Your task to perform on an android device: Search for seafood restaurants on Google Maps Image 0: 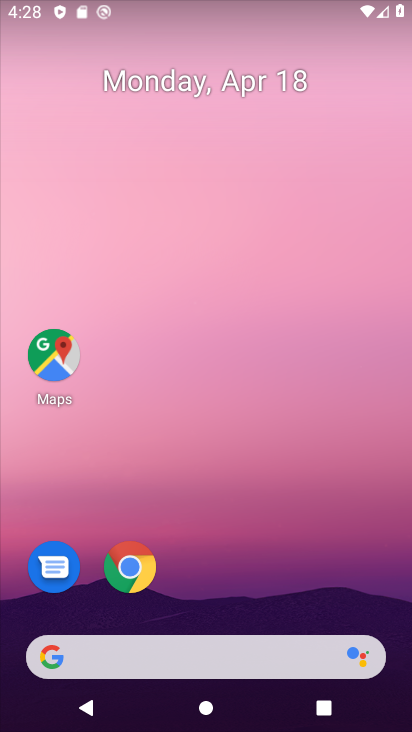
Step 0: click (45, 347)
Your task to perform on an android device: Search for seafood restaurants on Google Maps Image 1: 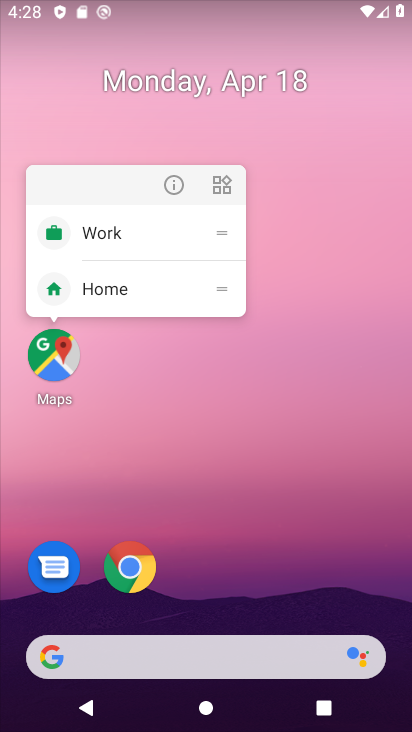
Step 1: click (45, 347)
Your task to perform on an android device: Search for seafood restaurants on Google Maps Image 2: 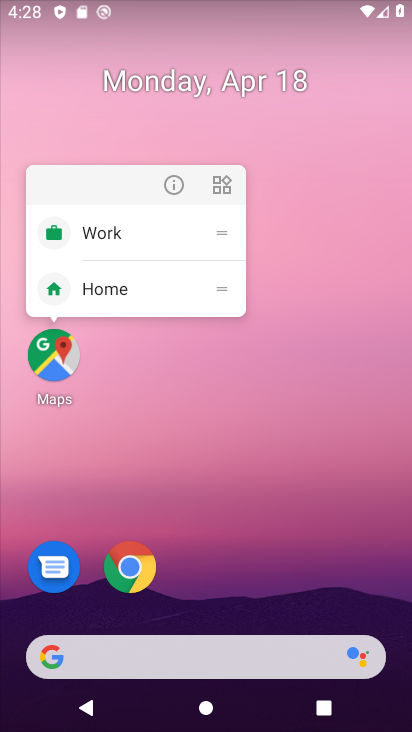
Step 2: click (45, 347)
Your task to perform on an android device: Search for seafood restaurants on Google Maps Image 3: 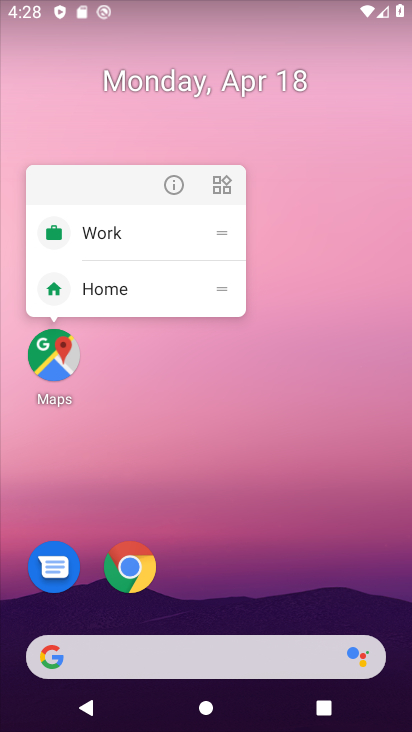
Step 3: click (45, 347)
Your task to perform on an android device: Search for seafood restaurants on Google Maps Image 4: 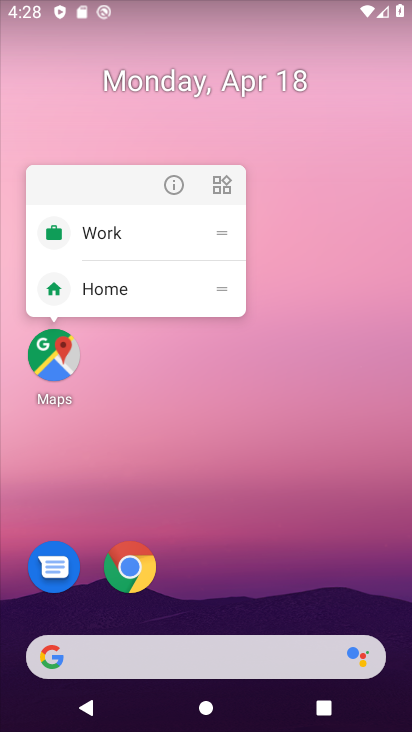
Step 4: click (71, 365)
Your task to perform on an android device: Search for seafood restaurants on Google Maps Image 5: 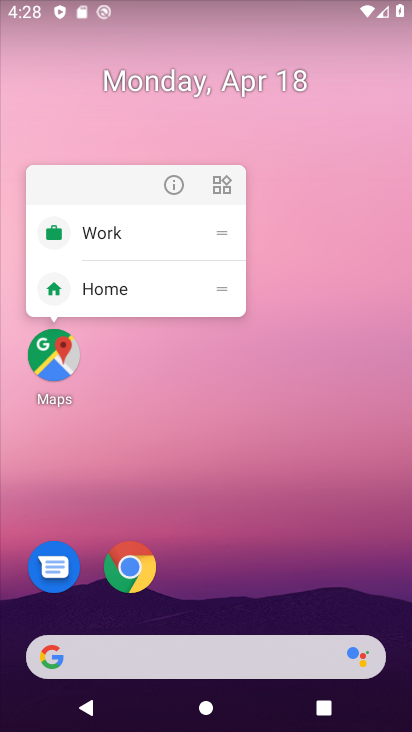
Step 5: click (71, 365)
Your task to perform on an android device: Search for seafood restaurants on Google Maps Image 6: 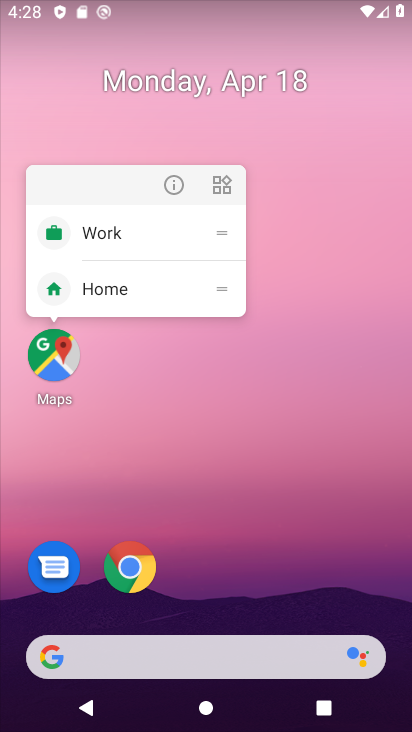
Step 6: click (71, 365)
Your task to perform on an android device: Search for seafood restaurants on Google Maps Image 7: 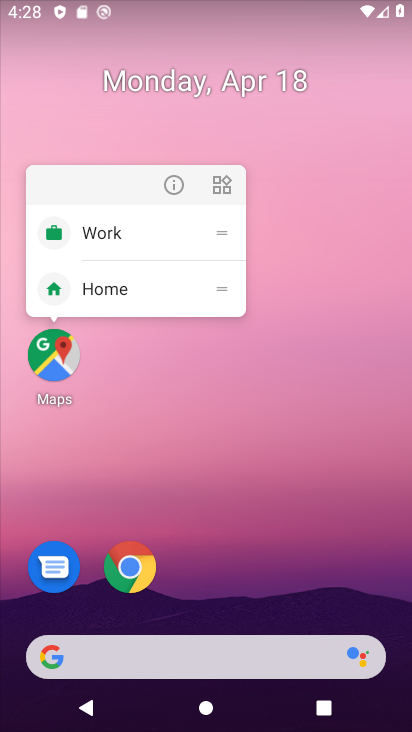
Step 7: click (67, 364)
Your task to perform on an android device: Search for seafood restaurants on Google Maps Image 8: 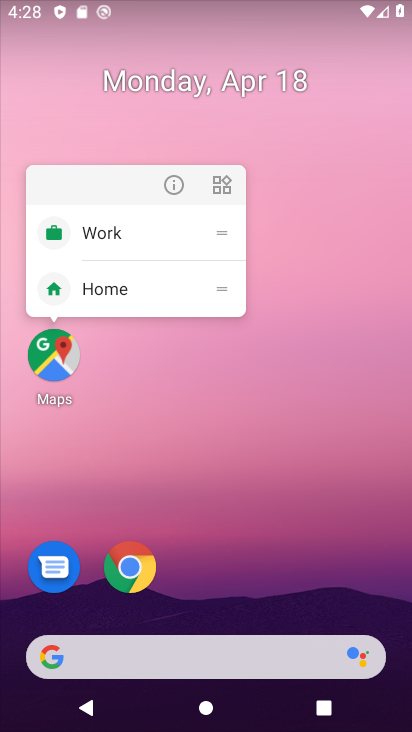
Step 8: click (67, 364)
Your task to perform on an android device: Search for seafood restaurants on Google Maps Image 9: 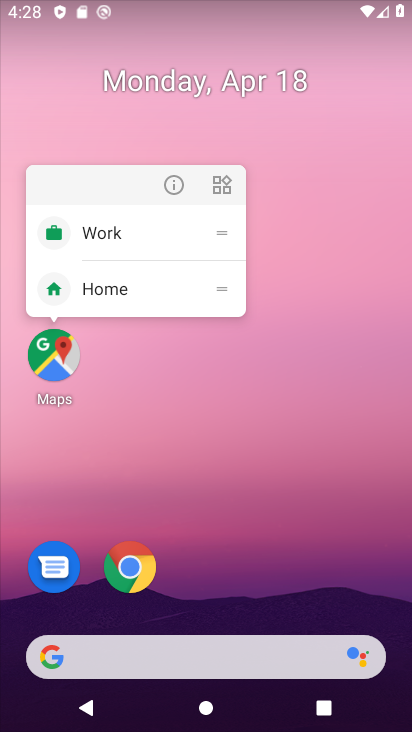
Step 9: click (67, 364)
Your task to perform on an android device: Search for seafood restaurants on Google Maps Image 10: 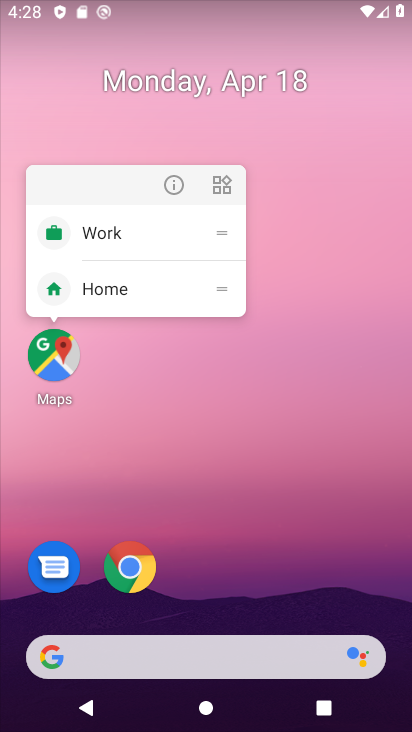
Step 10: click (67, 364)
Your task to perform on an android device: Search for seafood restaurants on Google Maps Image 11: 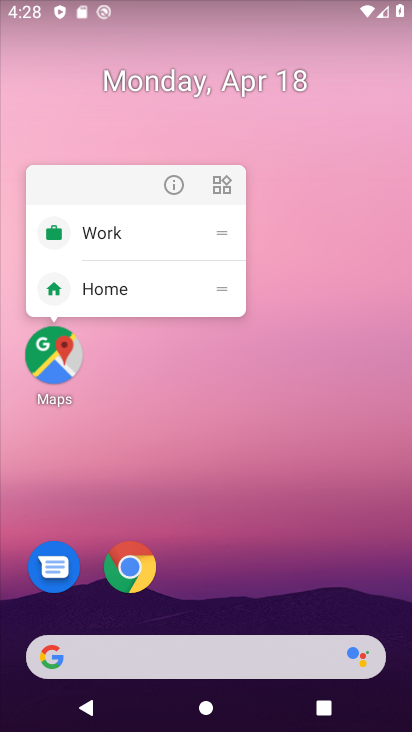
Step 11: click (67, 364)
Your task to perform on an android device: Search for seafood restaurants on Google Maps Image 12: 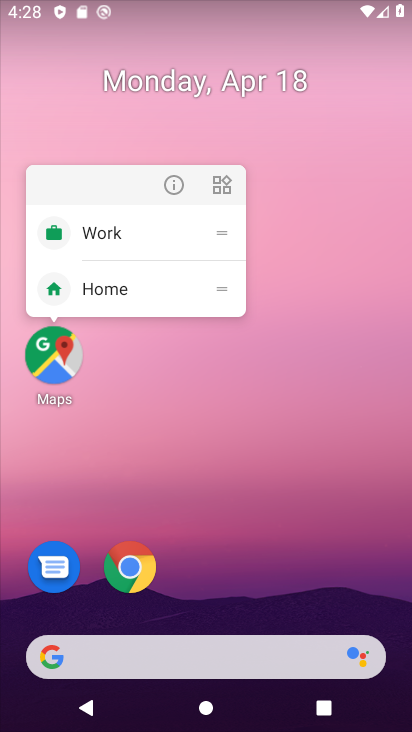
Step 12: click (67, 364)
Your task to perform on an android device: Search for seafood restaurants on Google Maps Image 13: 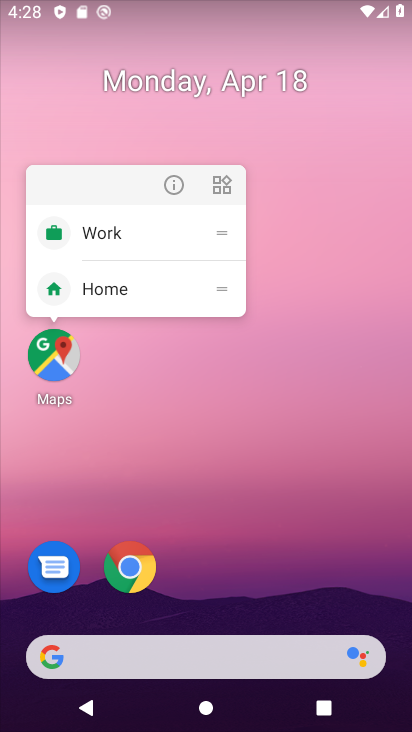
Step 13: click (47, 349)
Your task to perform on an android device: Search for seafood restaurants on Google Maps Image 14: 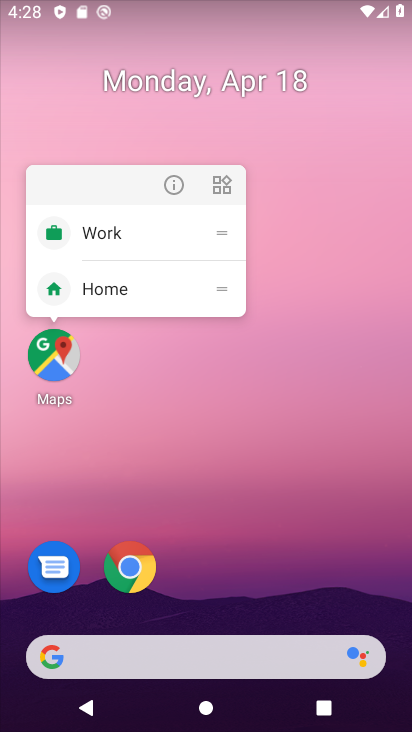
Step 14: click (47, 349)
Your task to perform on an android device: Search for seafood restaurants on Google Maps Image 15: 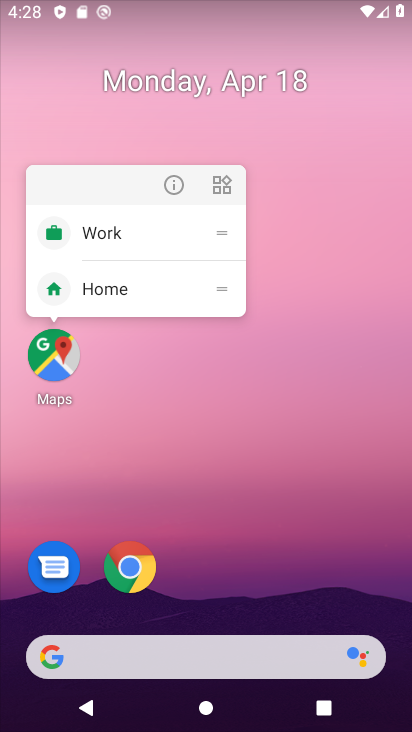
Step 15: click (47, 349)
Your task to perform on an android device: Search for seafood restaurants on Google Maps Image 16: 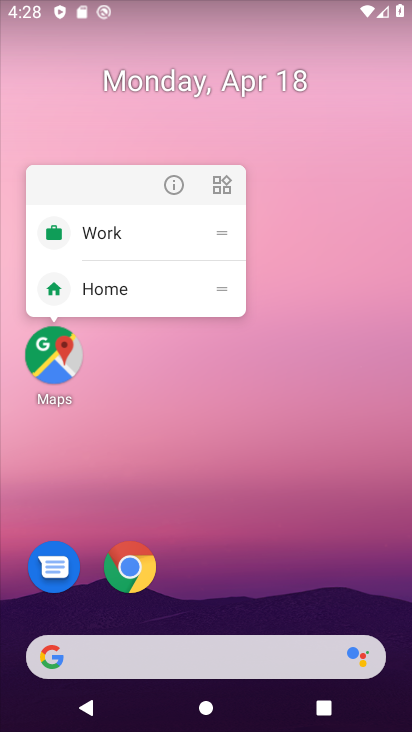
Step 16: click (47, 349)
Your task to perform on an android device: Search for seafood restaurants on Google Maps Image 17: 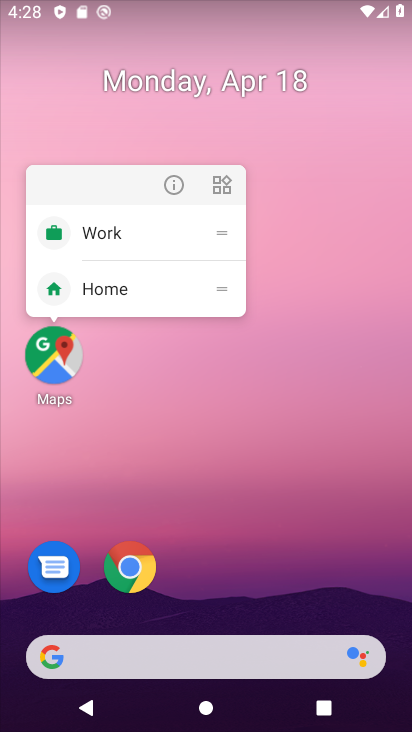
Step 17: click (47, 349)
Your task to perform on an android device: Search for seafood restaurants on Google Maps Image 18: 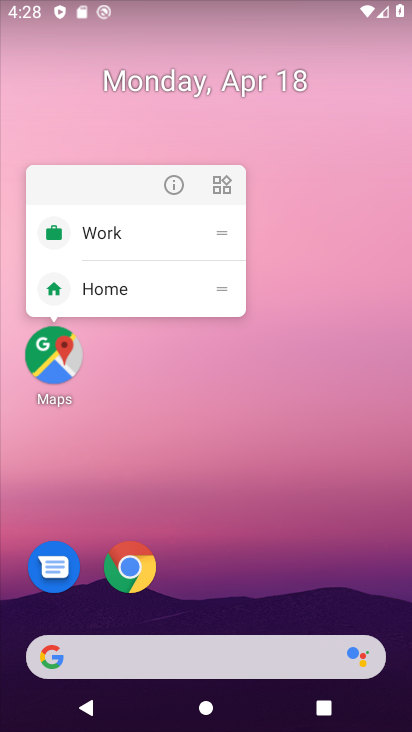
Step 18: click (47, 349)
Your task to perform on an android device: Search for seafood restaurants on Google Maps Image 19: 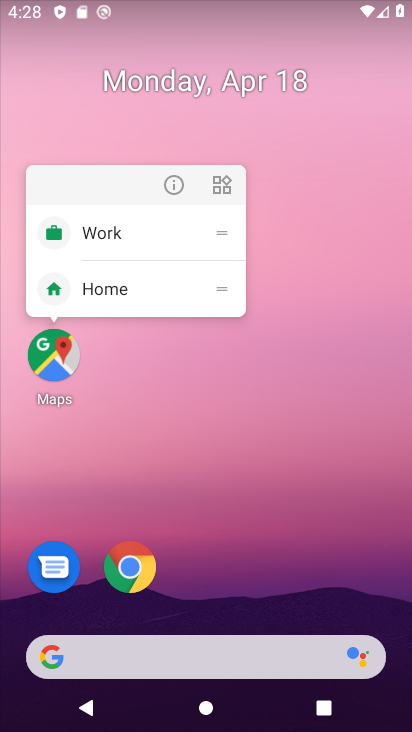
Step 19: click (59, 357)
Your task to perform on an android device: Search for seafood restaurants on Google Maps Image 20: 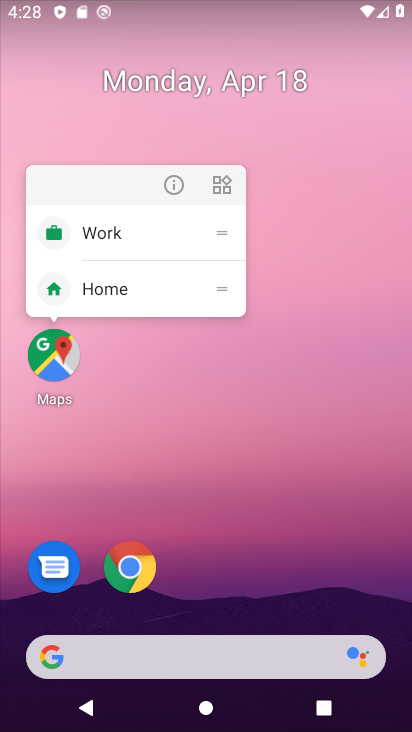
Step 20: click (59, 357)
Your task to perform on an android device: Search for seafood restaurants on Google Maps Image 21: 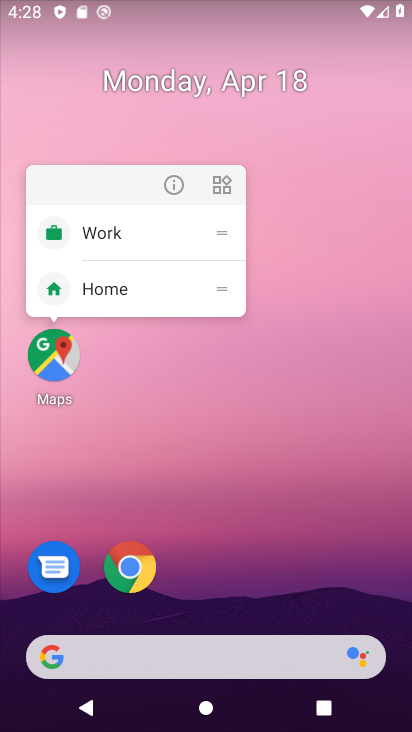
Step 21: click (59, 357)
Your task to perform on an android device: Search for seafood restaurants on Google Maps Image 22: 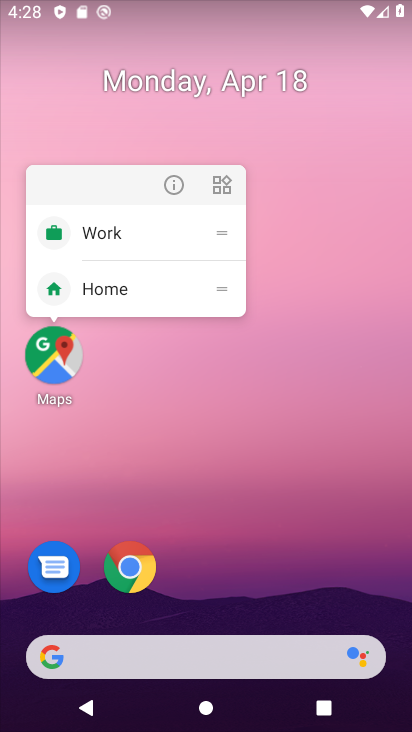
Step 22: click (59, 357)
Your task to perform on an android device: Search for seafood restaurants on Google Maps Image 23: 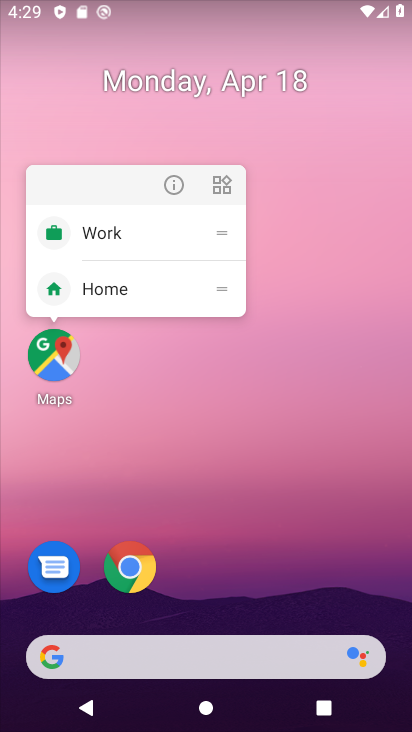
Step 23: click (42, 356)
Your task to perform on an android device: Search for seafood restaurants on Google Maps Image 24: 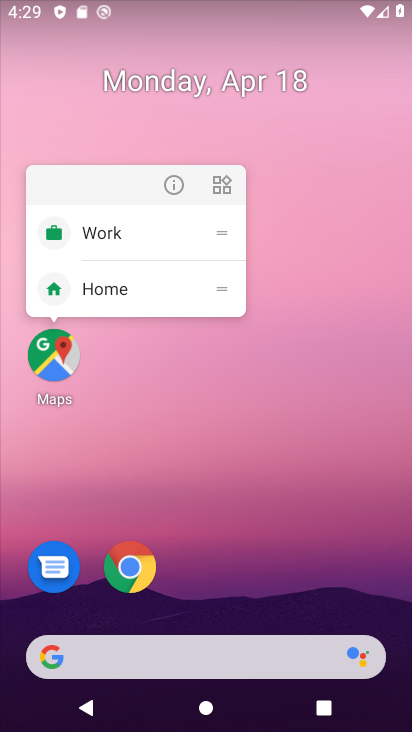
Step 24: click (42, 356)
Your task to perform on an android device: Search for seafood restaurants on Google Maps Image 25: 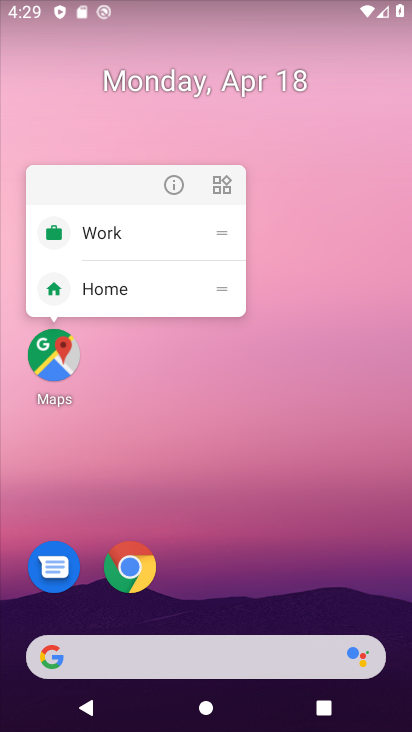
Step 25: click (42, 356)
Your task to perform on an android device: Search for seafood restaurants on Google Maps Image 26: 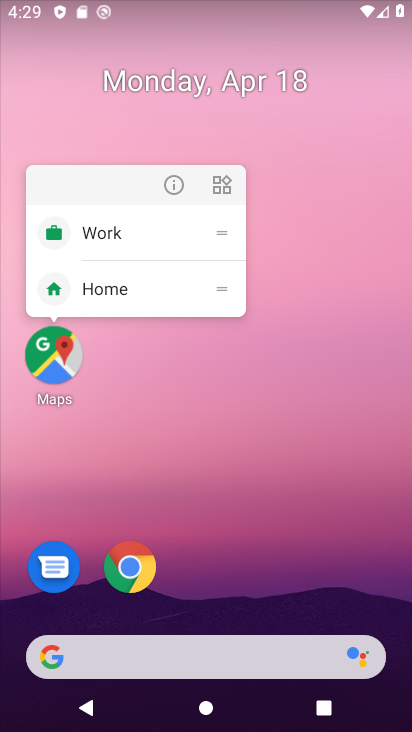
Step 26: click (42, 356)
Your task to perform on an android device: Search for seafood restaurants on Google Maps Image 27: 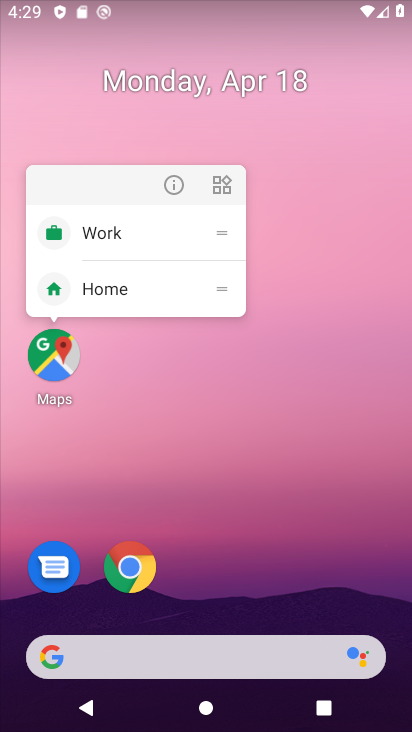
Step 27: click (42, 356)
Your task to perform on an android device: Search for seafood restaurants on Google Maps Image 28: 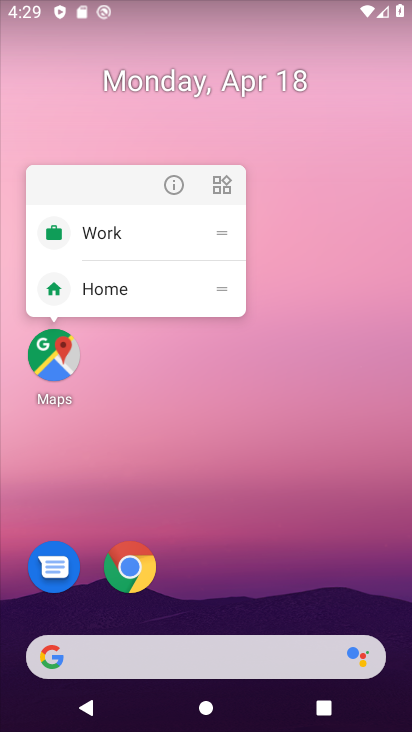
Step 28: click (42, 356)
Your task to perform on an android device: Search for seafood restaurants on Google Maps Image 29: 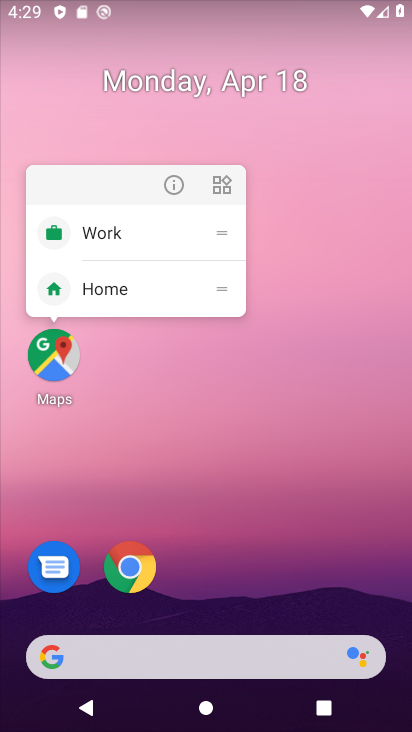
Step 29: click (41, 357)
Your task to perform on an android device: Search for seafood restaurants on Google Maps Image 30: 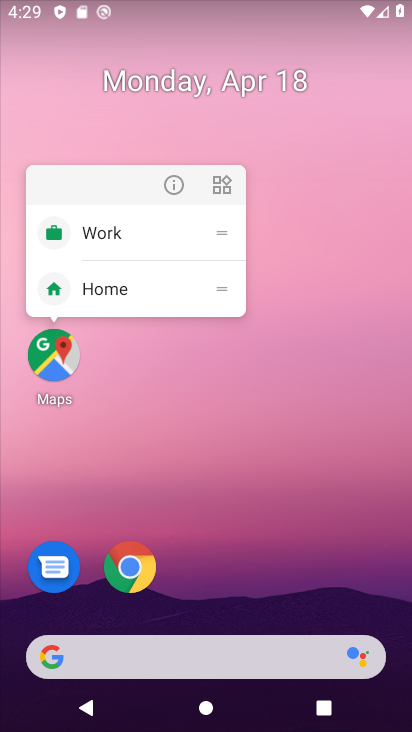
Step 30: click (41, 357)
Your task to perform on an android device: Search for seafood restaurants on Google Maps Image 31: 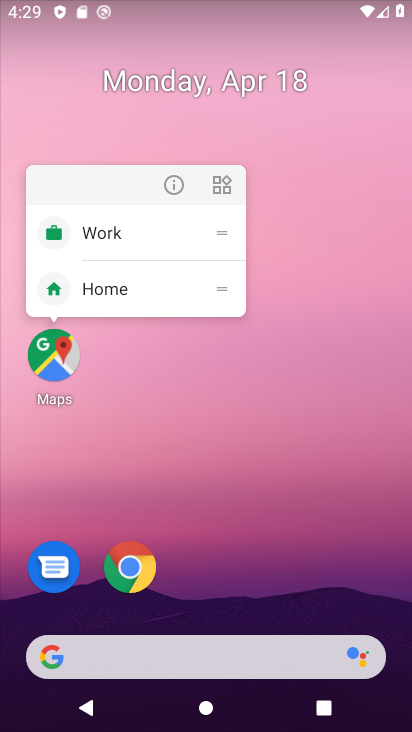
Step 31: click (41, 357)
Your task to perform on an android device: Search for seafood restaurants on Google Maps Image 32: 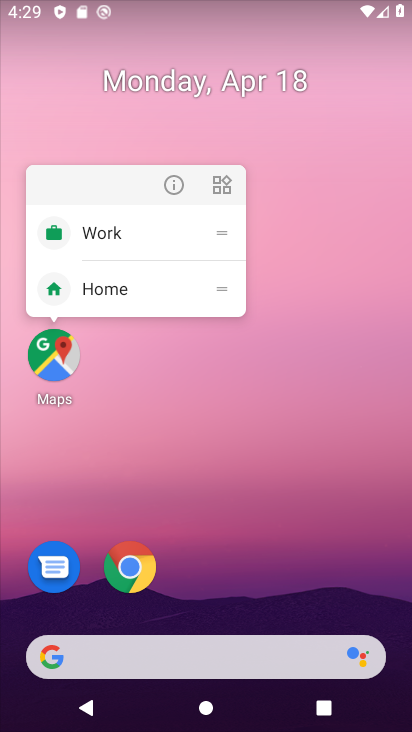
Step 32: click (41, 357)
Your task to perform on an android device: Search for seafood restaurants on Google Maps Image 33: 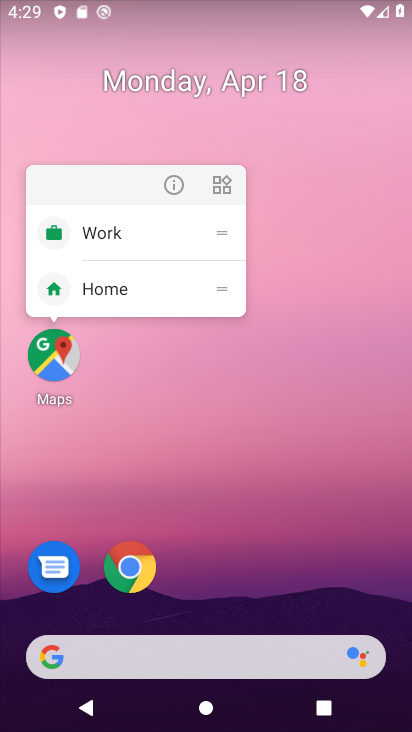
Step 33: click (41, 357)
Your task to perform on an android device: Search for seafood restaurants on Google Maps Image 34: 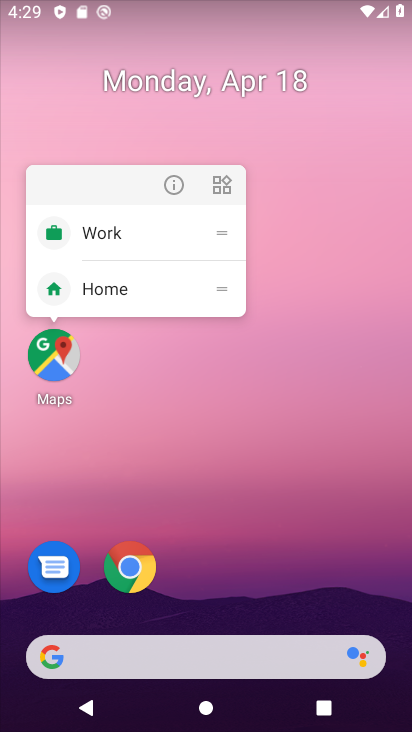
Step 34: click (41, 357)
Your task to perform on an android device: Search for seafood restaurants on Google Maps Image 35: 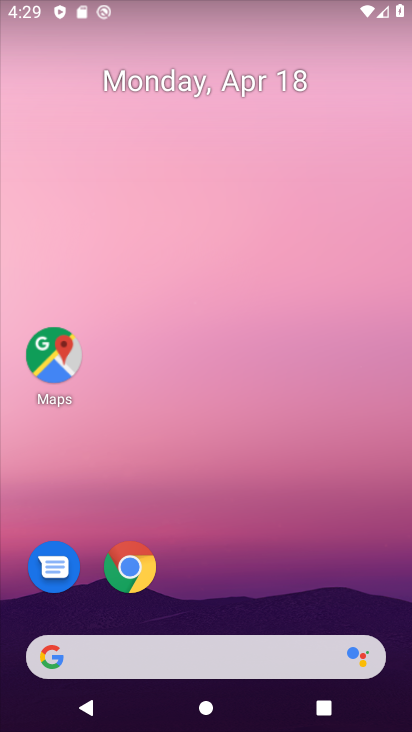
Step 35: click (41, 357)
Your task to perform on an android device: Search for seafood restaurants on Google Maps Image 36: 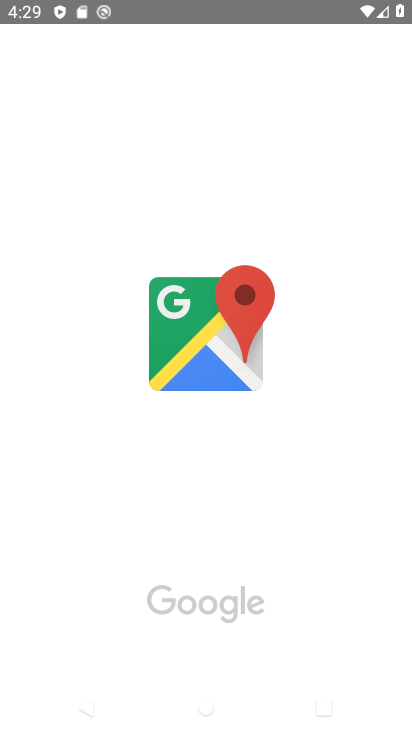
Step 36: click (41, 357)
Your task to perform on an android device: Search for seafood restaurants on Google Maps Image 37: 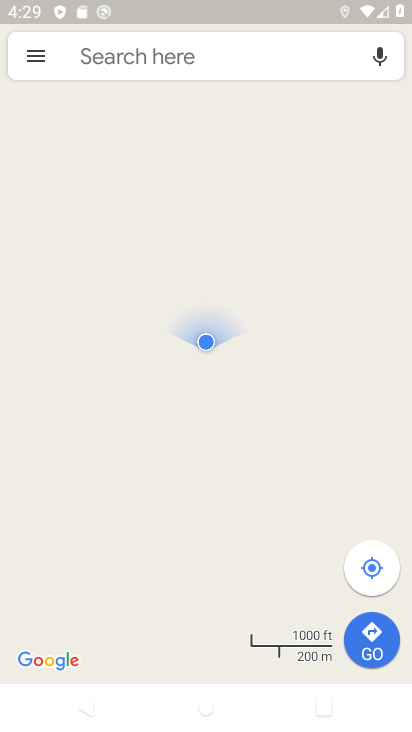
Step 37: click (91, 47)
Your task to perform on an android device: Search for seafood restaurants on Google Maps Image 38: 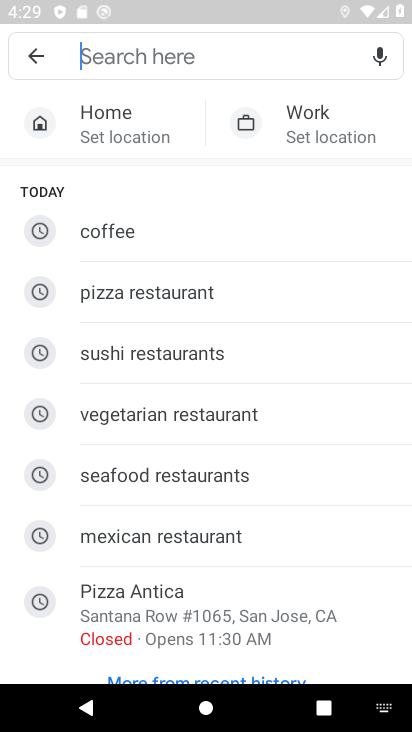
Step 38: type "seafoodh reastuarent"
Your task to perform on an android device: Search for seafood restaurants on Google Maps Image 39: 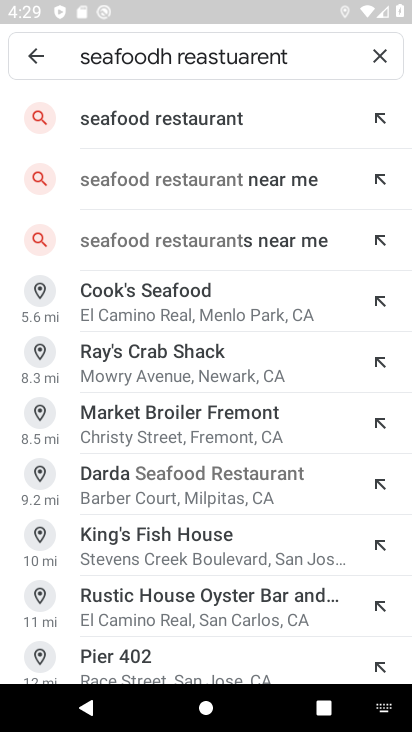
Step 39: click (171, 100)
Your task to perform on an android device: Search for seafood restaurants on Google Maps Image 40: 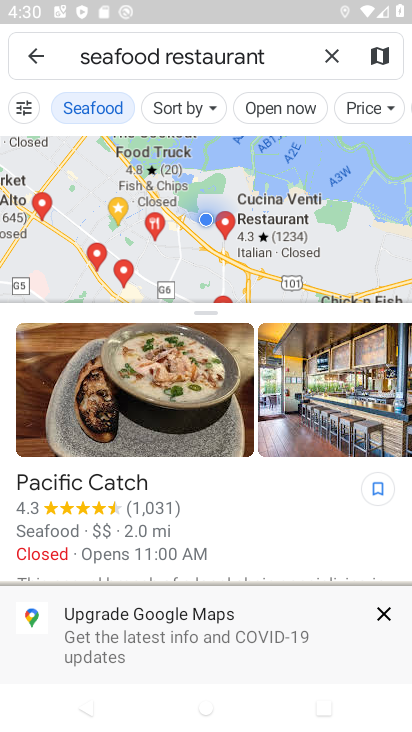
Step 40: task complete